Your task to perform on an android device: What is the news today? Image 0: 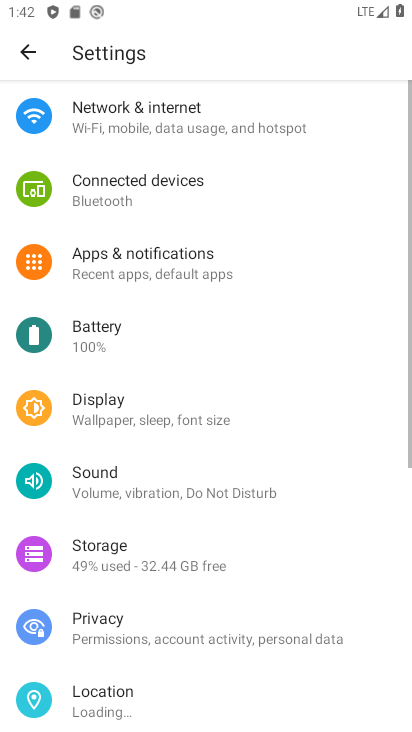
Step 0: drag from (171, 525) to (197, 308)
Your task to perform on an android device: What is the news today? Image 1: 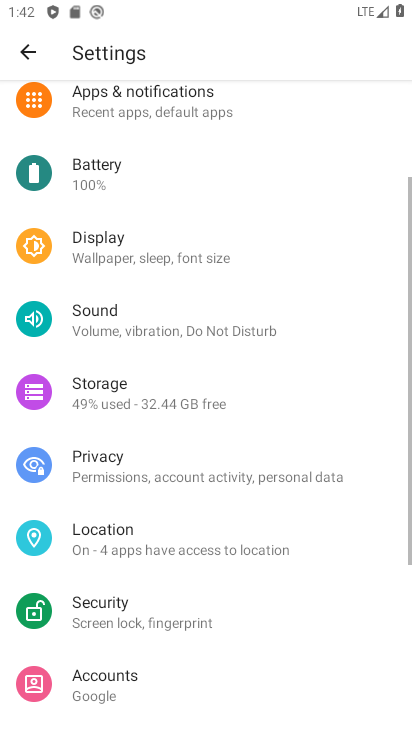
Step 1: press home button
Your task to perform on an android device: What is the news today? Image 2: 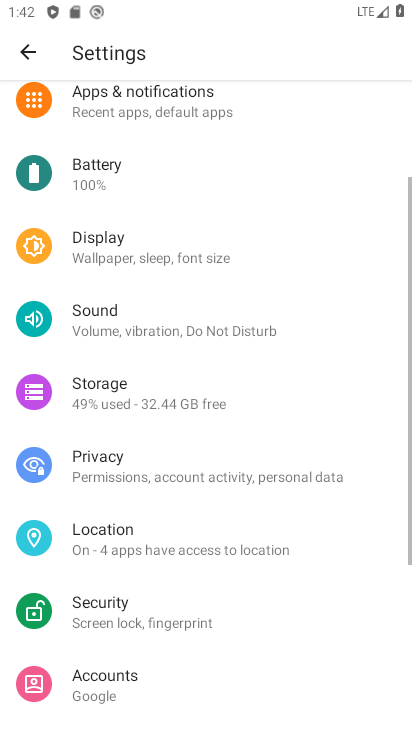
Step 2: click (262, 39)
Your task to perform on an android device: What is the news today? Image 3: 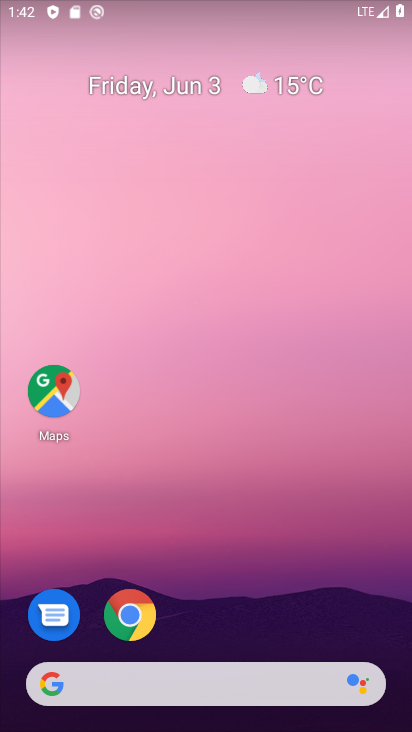
Step 3: drag from (271, 573) to (297, 93)
Your task to perform on an android device: What is the news today? Image 4: 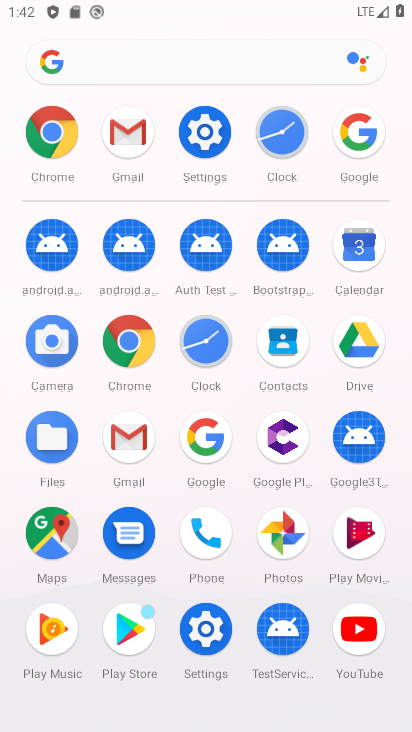
Step 4: click (155, 61)
Your task to perform on an android device: What is the news today? Image 5: 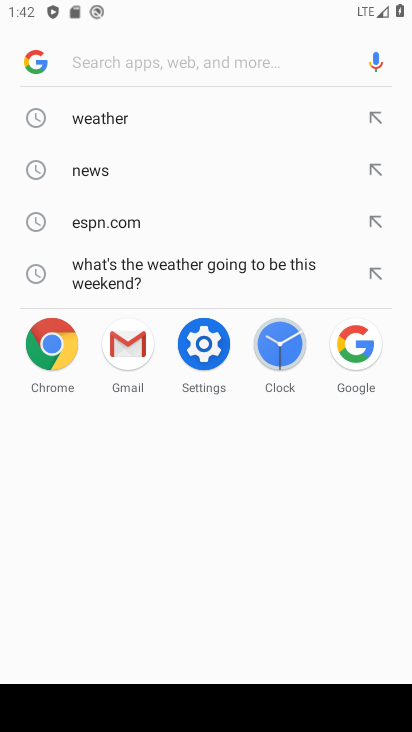
Step 5: click (80, 45)
Your task to perform on an android device: What is the news today? Image 6: 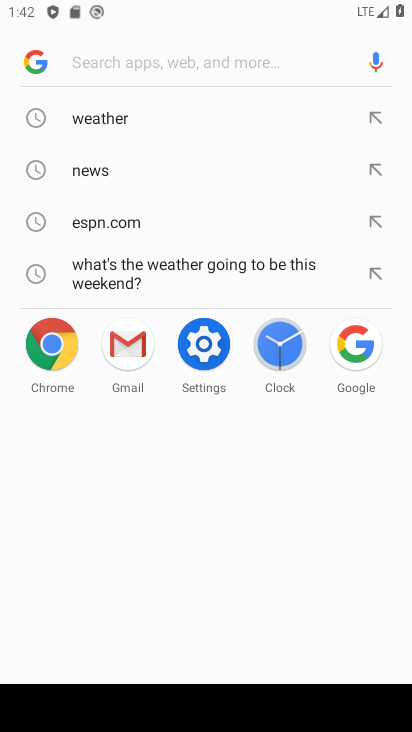
Step 6: type "news today?"
Your task to perform on an android device: What is the news today? Image 7: 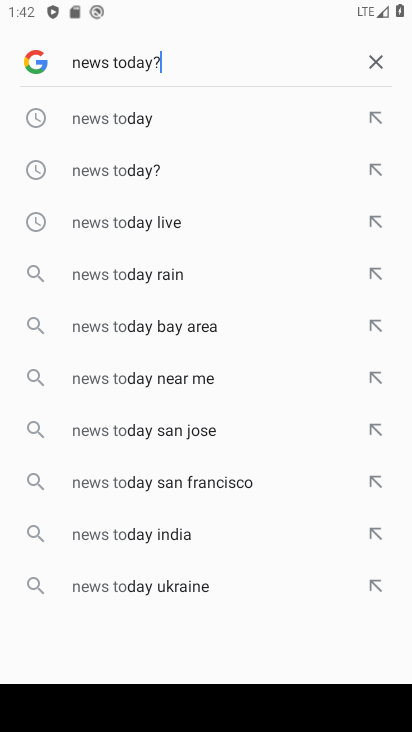
Step 7: type ""
Your task to perform on an android device: What is the news today? Image 8: 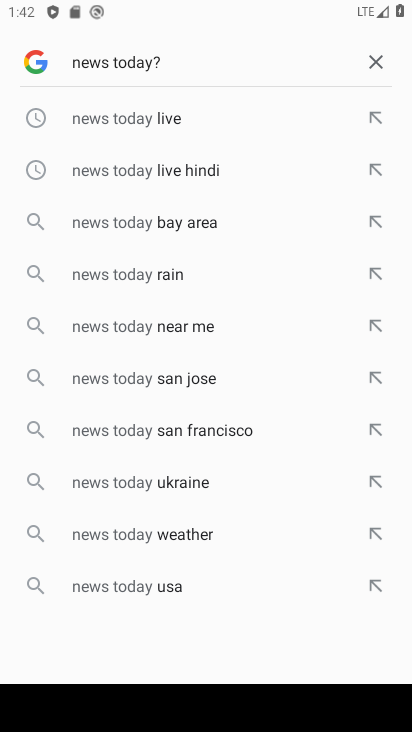
Step 8: click (114, 117)
Your task to perform on an android device: What is the news today? Image 9: 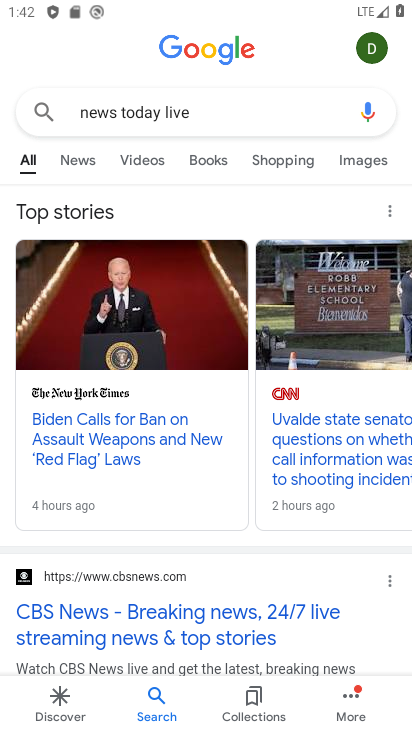
Step 9: drag from (238, 602) to (240, 271)
Your task to perform on an android device: What is the news today? Image 10: 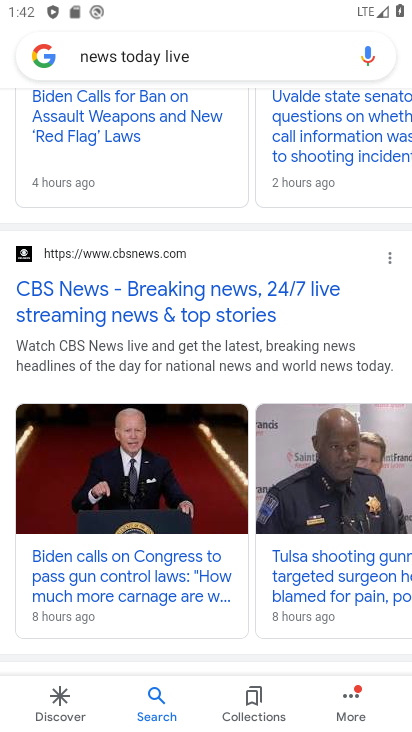
Step 10: drag from (289, 572) to (290, 147)
Your task to perform on an android device: What is the news today? Image 11: 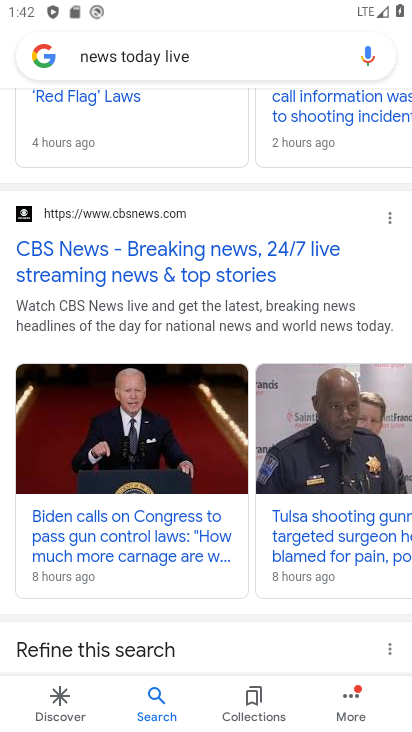
Step 11: drag from (283, 422) to (146, 726)
Your task to perform on an android device: What is the news today? Image 12: 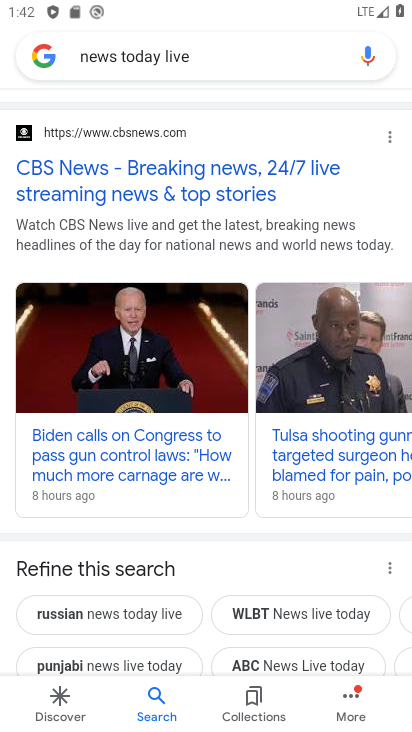
Step 12: drag from (253, 190) to (338, 730)
Your task to perform on an android device: What is the news today? Image 13: 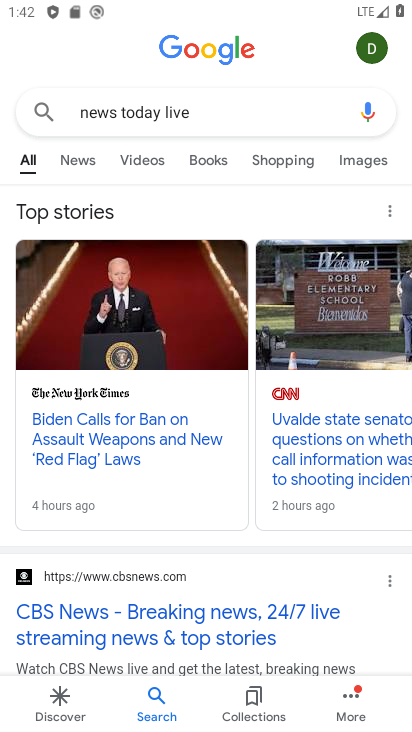
Step 13: drag from (240, 564) to (241, 246)
Your task to perform on an android device: What is the news today? Image 14: 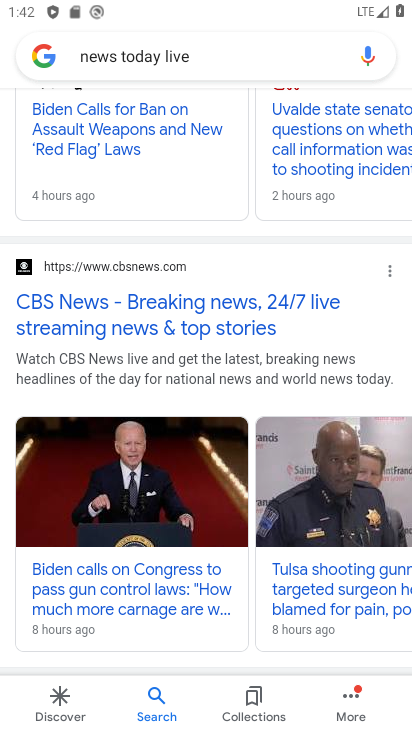
Step 14: drag from (188, 390) to (267, 213)
Your task to perform on an android device: What is the news today? Image 15: 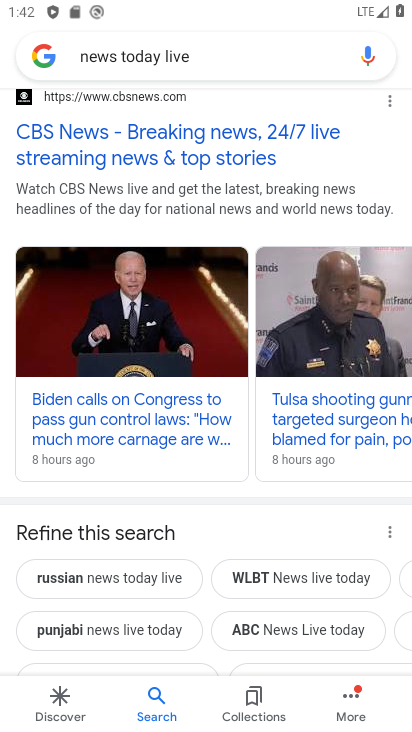
Step 15: drag from (268, 238) to (402, 576)
Your task to perform on an android device: What is the news today? Image 16: 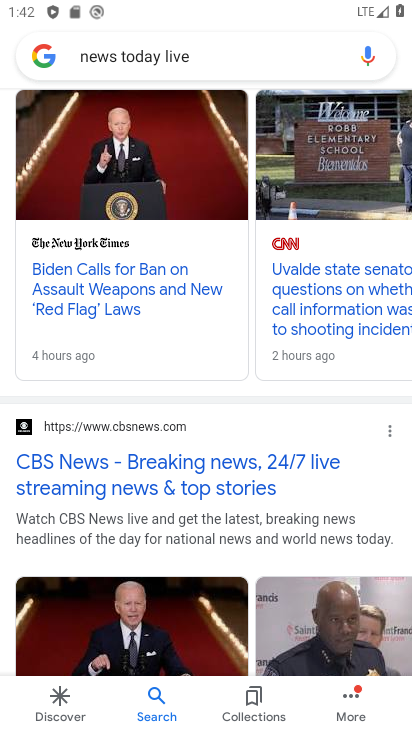
Step 16: drag from (214, 416) to (361, 730)
Your task to perform on an android device: What is the news today? Image 17: 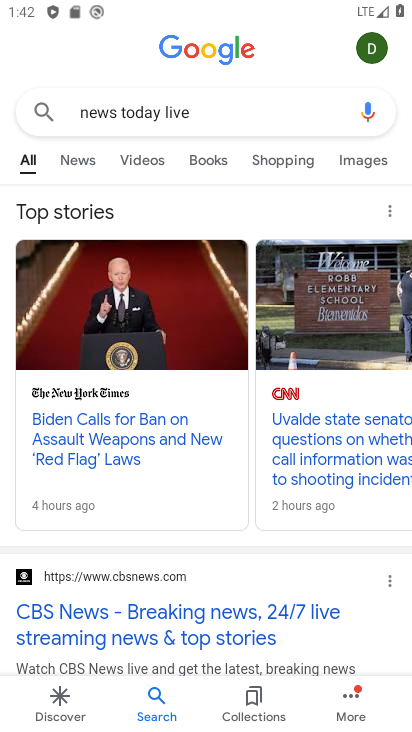
Step 17: drag from (303, 292) to (326, 210)
Your task to perform on an android device: What is the news today? Image 18: 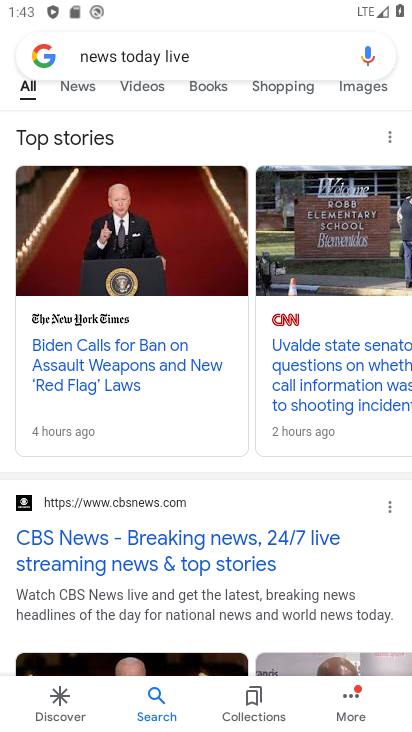
Step 18: click (184, 573)
Your task to perform on an android device: What is the news today? Image 19: 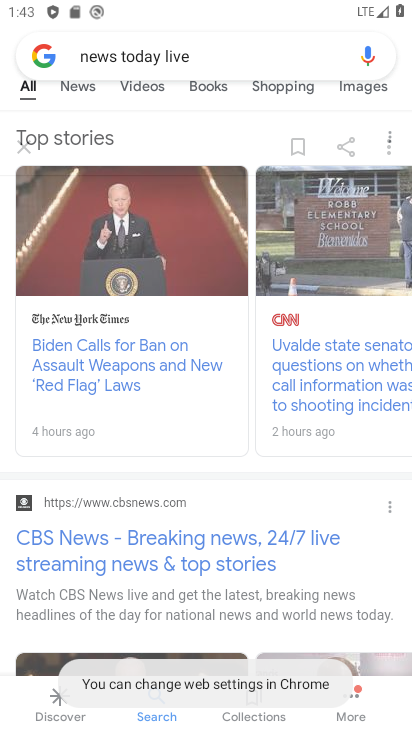
Step 19: task complete